Your task to perform on an android device: Open settings on Google Maps Image 0: 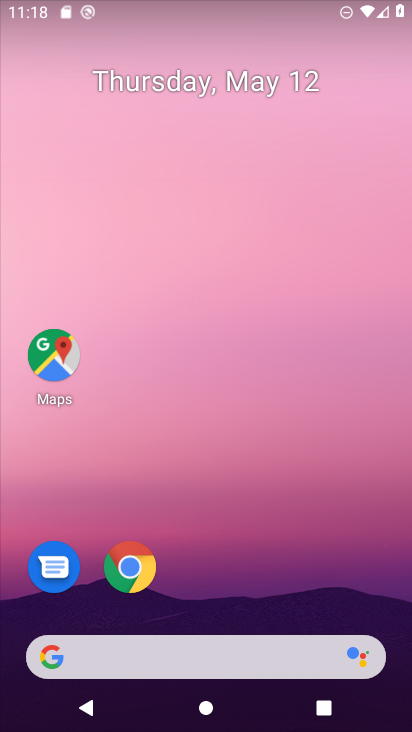
Step 0: drag from (208, 571) to (248, 240)
Your task to perform on an android device: Open settings on Google Maps Image 1: 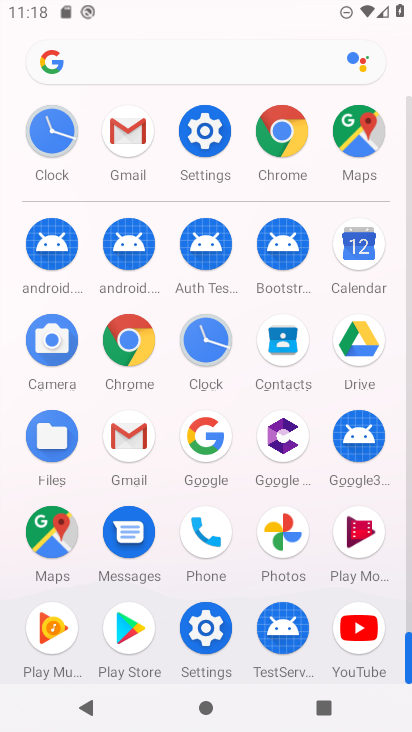
Step 1: click (60, 537)
Your task to perform on an android device: Open settings on Google Maps Image 2: 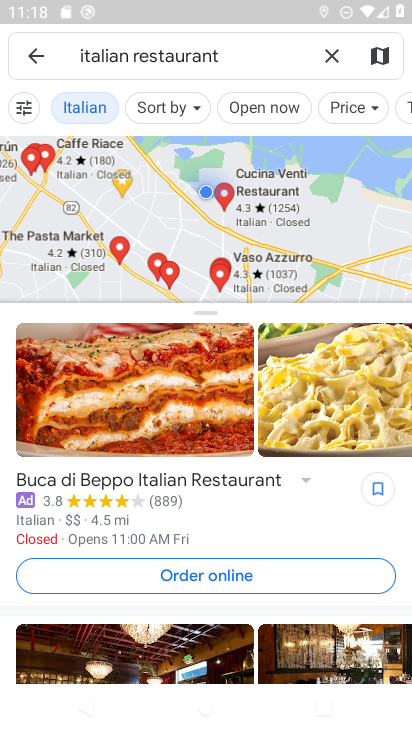
Step 2: click (326, 61)
Your task to perform on an android device: Open settings on Google Maps Image 3: 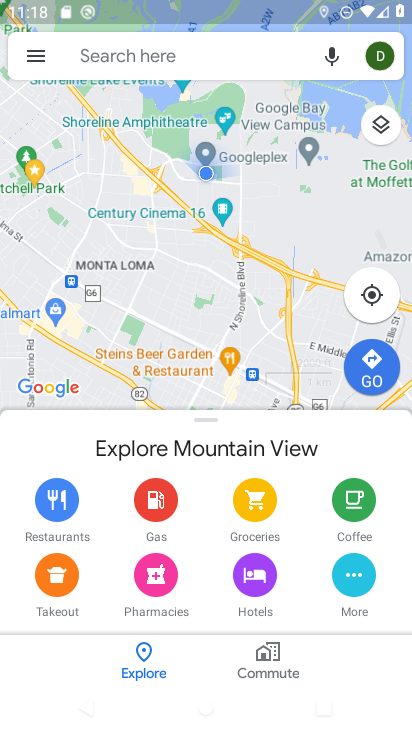
Step 3: click (45, 56)
Your task to perform on an android device: Open settings on Google Maps Image 4: 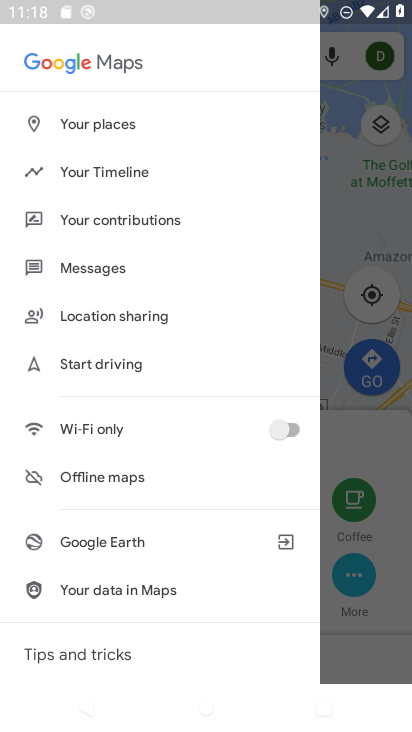
Step 4: drag from (141, 519) to (226, 267)
Your task to perform on an android device: Open settings on Google Maps Image 5: 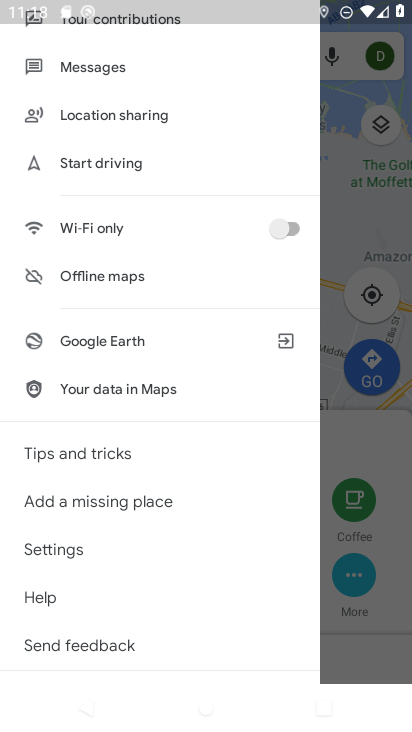
Step 5: click (114, 551)
Your task to perform on an android device: Open settings on Google Maps Image 6: 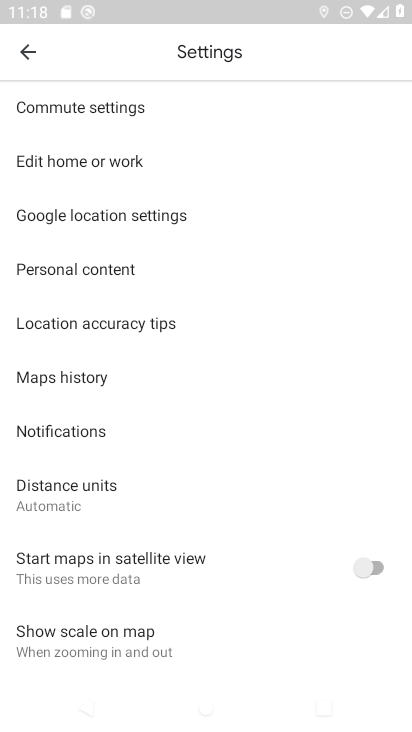
Step 6: task complete